Your task to perform on an android device: Open notification settings Image 0: 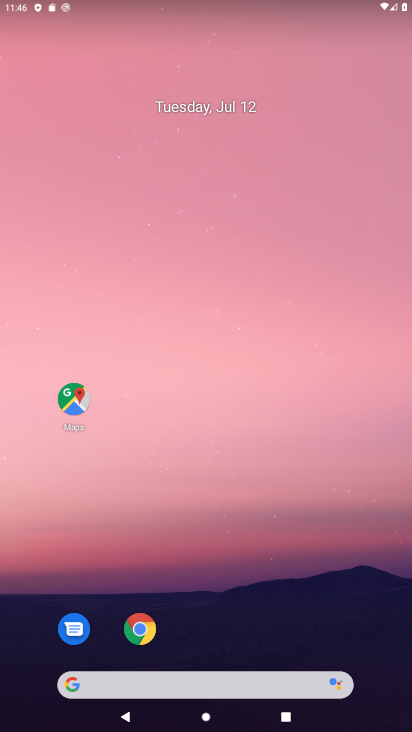
Step 0: drag from (219, 636) to (218, 133)
Your task to perform on an android device: Open notification settings Image 1: 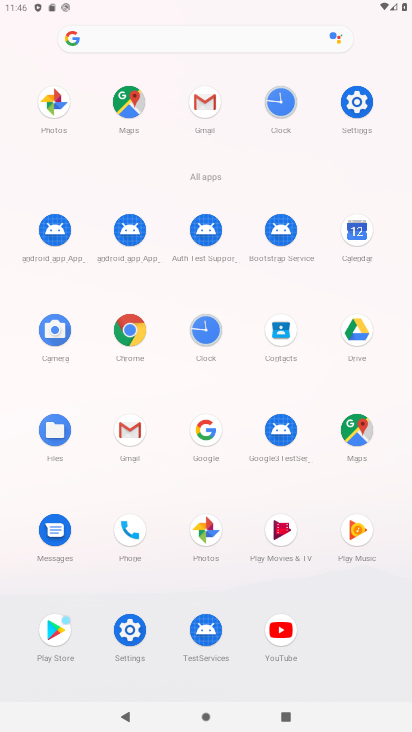
Step 1: click (351, 107)
Your task to perform on an android device: Open notification settings Image 2: 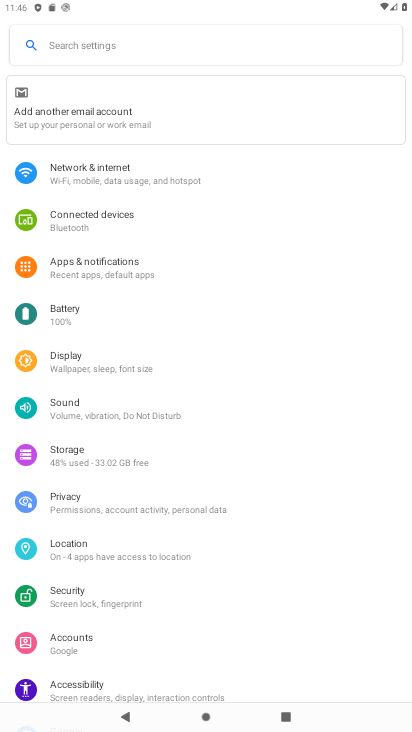
Step 2: click (131, 276)
Your task to perform on an android device: Open notification settings Image 3: 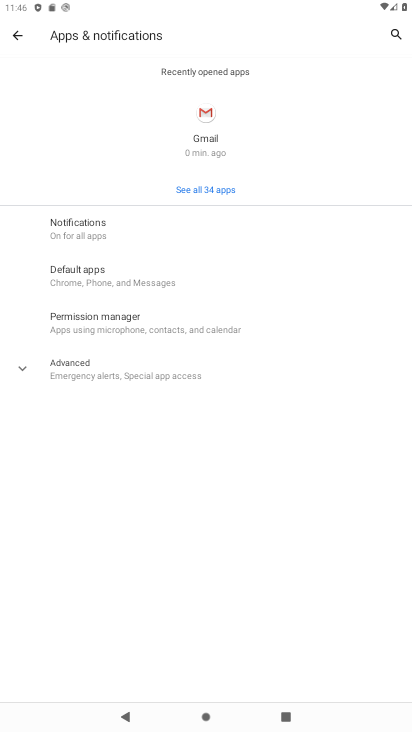
Step 3: click (106, 228)
Your task to perform on an android device: Open notification settings Image 4: 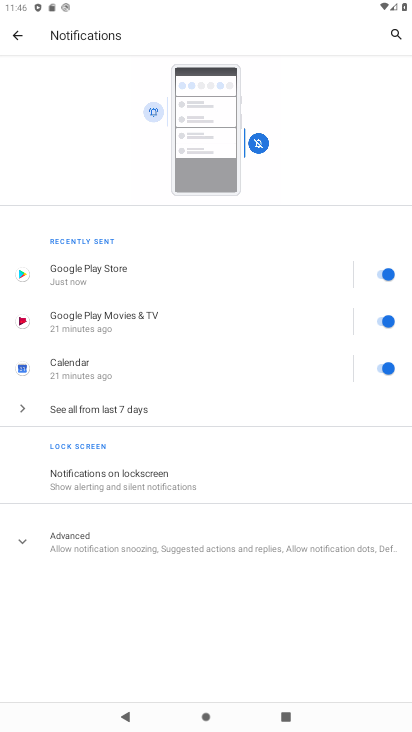
Step 4: task complete